Your task to perform on an android device: turn off javascript in the chrome app Image 0: 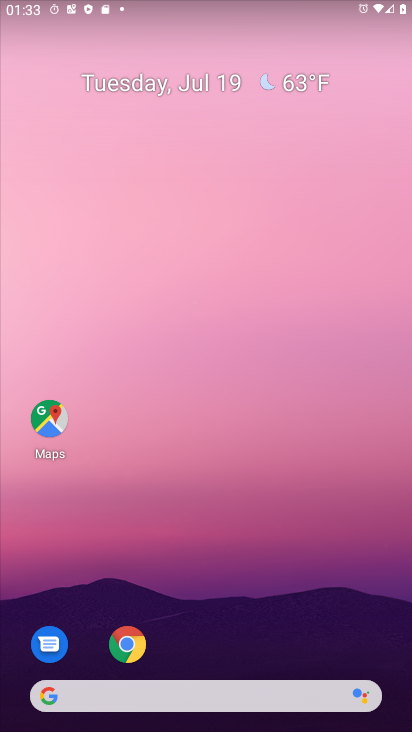
Step 0: click (126, 642)
Your task to perform on an android device: turn off javascript in the chrome app Image 1: 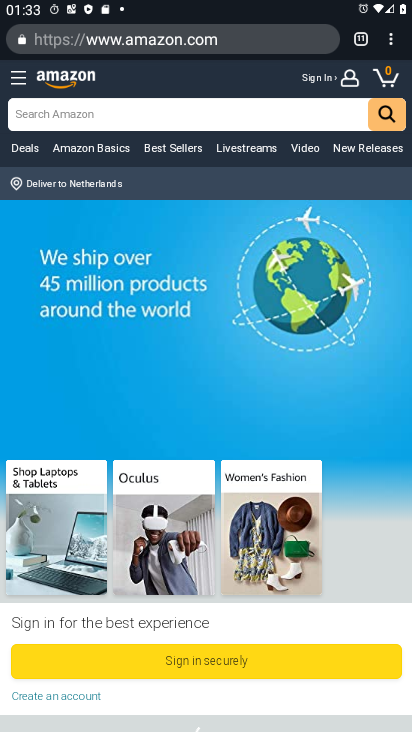
Step 1: click (391, 49)
Your task to perform on an android device: turn off javascript in the chrome app Image 2: 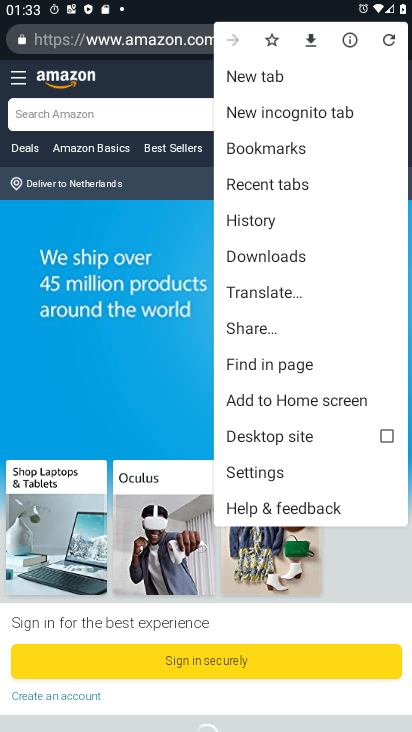
Step 2: click (252, 475)
Your task to perform on an android device: turn off javascript in the chrome app Image 3: 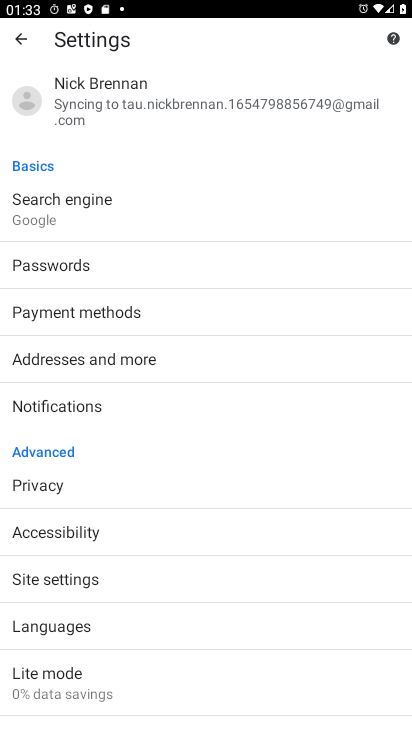
Step 3: click (72, 575)
Your task to perform on an android device: turn off javascript in the chrome app Image 4: 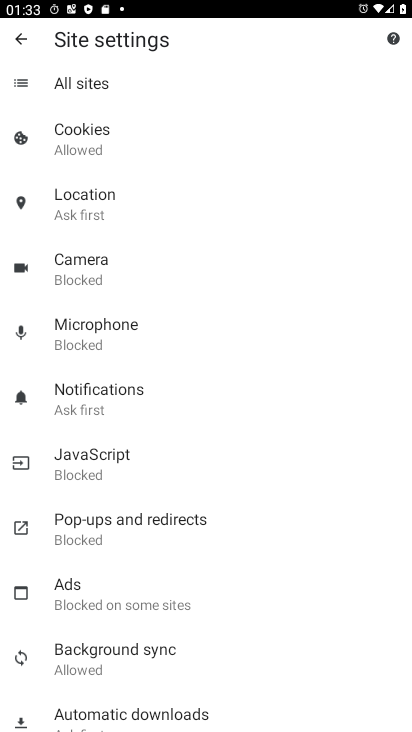
Step 4: click (78, 461)
Your task to perform on an android device: turn off javascript in the chrome app Image 5: 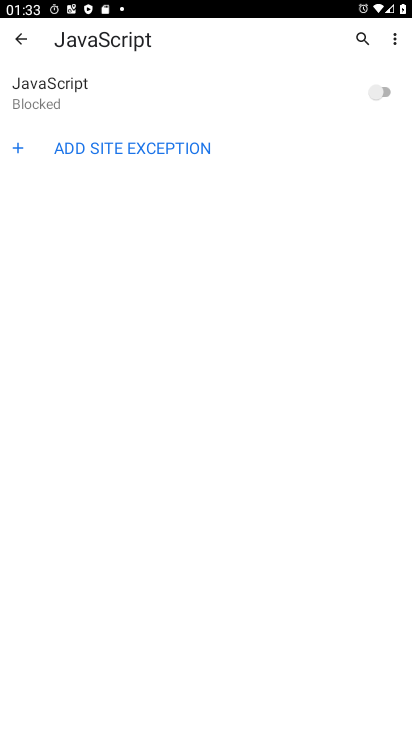
Step 5: task complete